Your task to perform on an android device: Show me popular games on the Play Store Image 0: 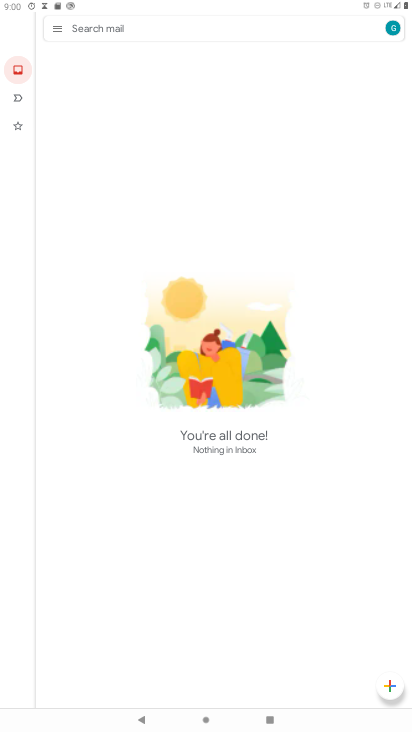
Step 0: press home button
Your task to perform on an android device: Show me popular games on the Play Store Image 1: 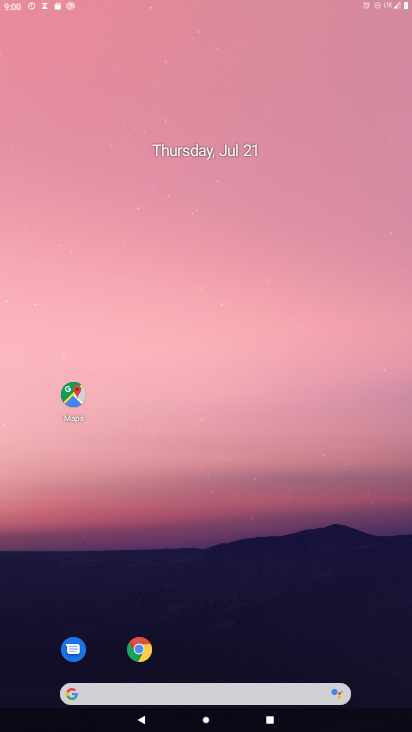
Step 1: drag from (390, 687) to (200, 39)
Your task to perform on an android device: Show me popular games on the Play Store Image 2: 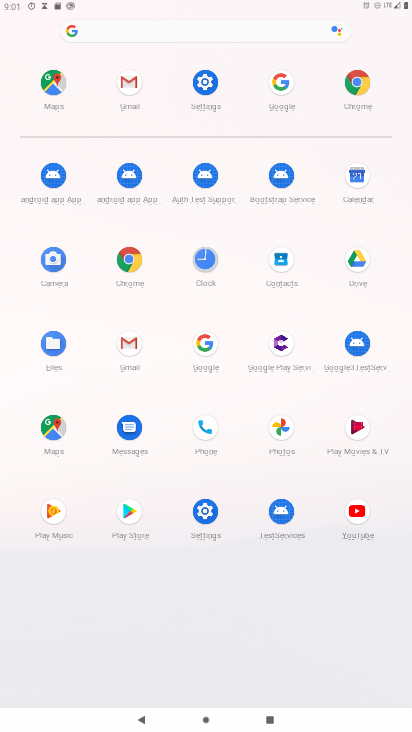
Step 2: click (129, 521)
Your task to perform on an android device: Show me popular games on the Play Store Image 3: 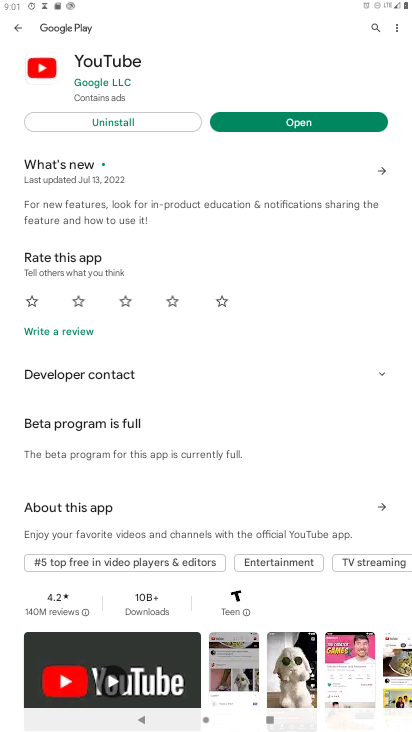
Step 3: press back button
Your task to perform on an android device: Show me popular games on the Play Store Image 4: 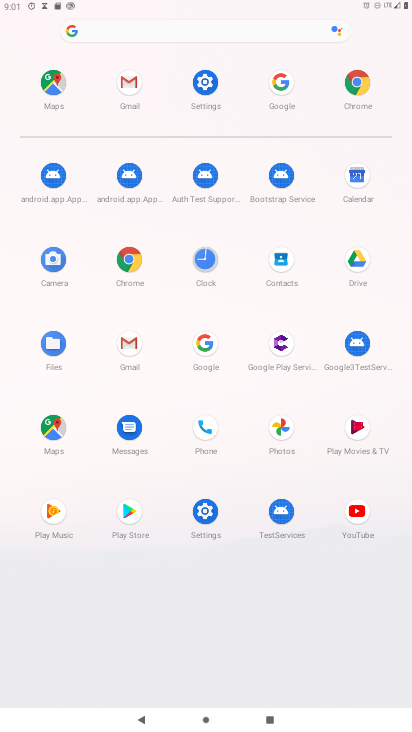
Step 4: click (124, 519)
Your task to perform on an android device: Show me popular games on the Play Store Image 5: 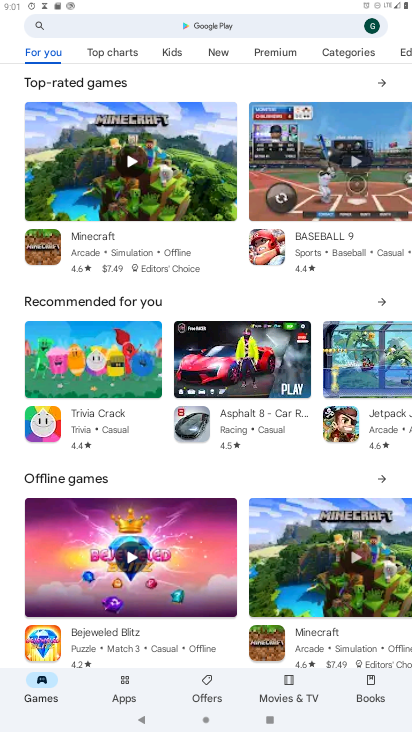
Step 5: click (114, 27)
Your task to perform on an android device: Show me popular games on the Play Store Image 6: 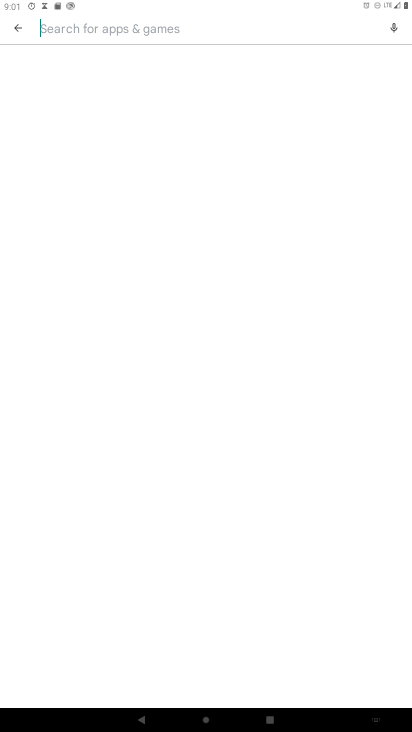
Step 6: type "popular games"
Your task to perform on an android device: Show me popular games on the Play Store Image 7: 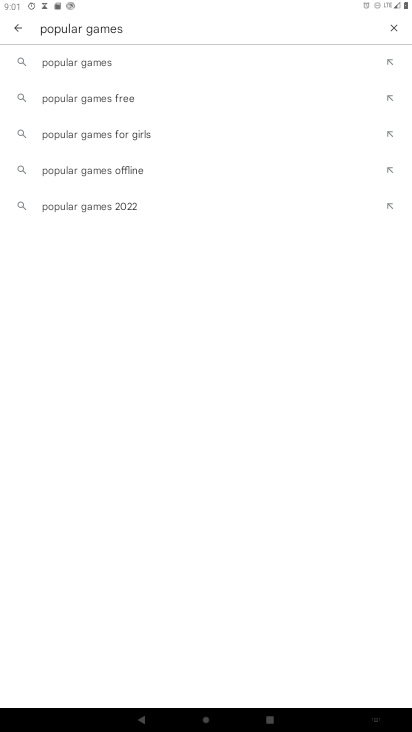
Step 7: click (101, 58)
Your task to perform on an android device: Show me popular games on the Play Store Image 8: 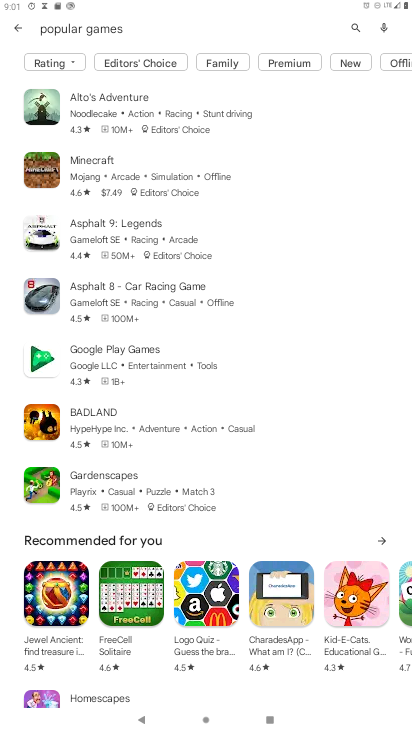
Step 8: task complete